Your task to perform on an android device: turn off notifications settings in the gmail app Image 0: 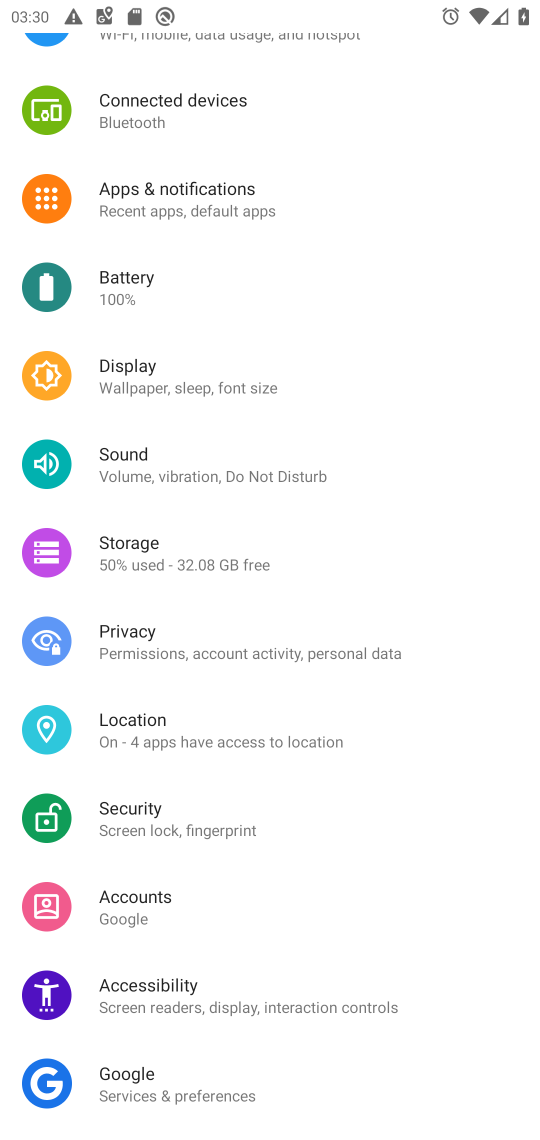
Step 0: press home button
Your task to perform on an android device: turn off notifications settings in the gmail app Image 1: 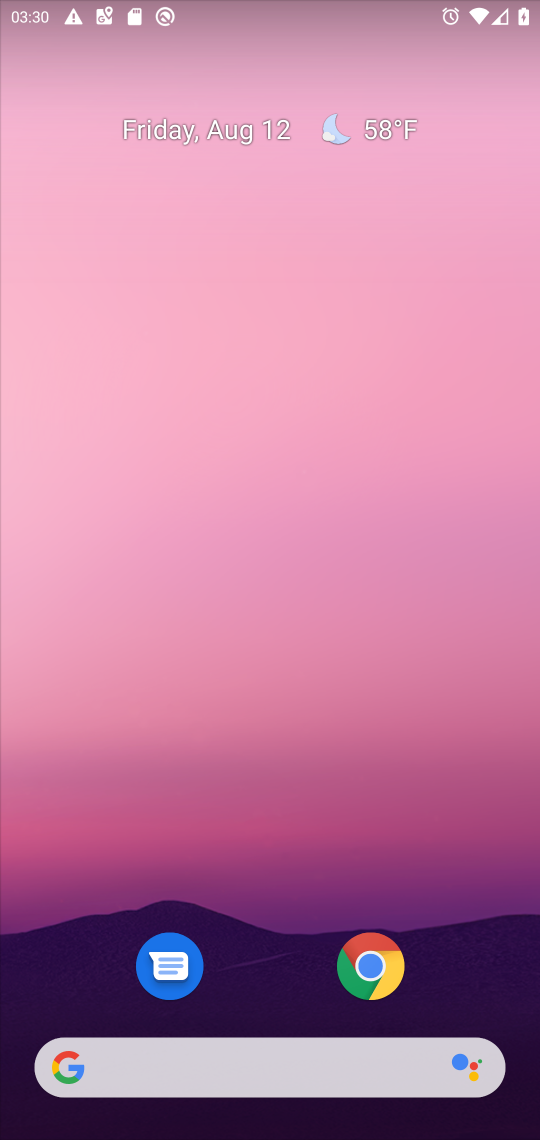
Step 1: drag from (266, 931) to (253, 25)
Your task to perform on an android device: turn off notifications settings in the gmail app Image 2: 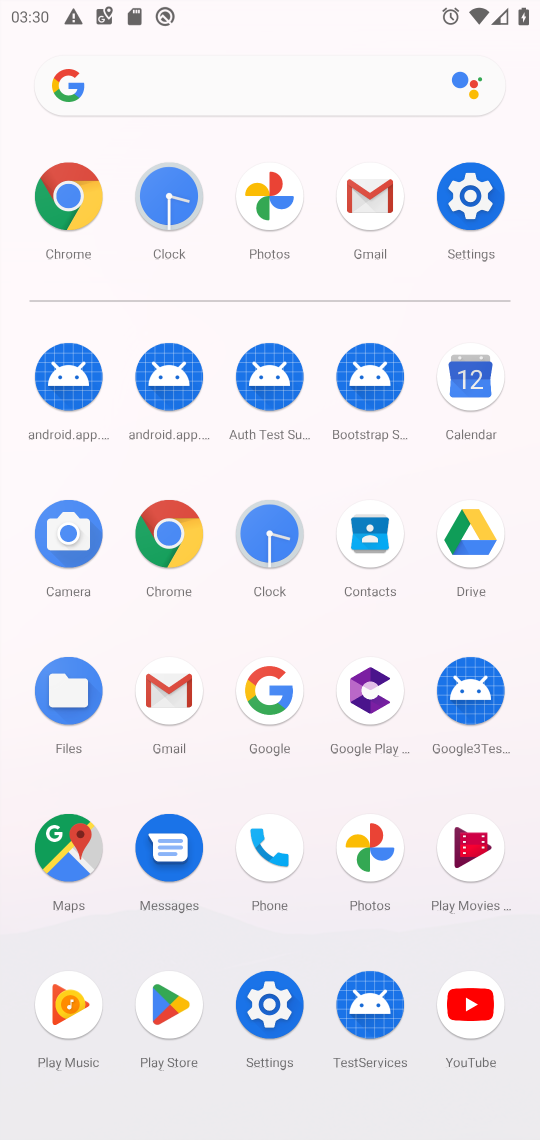
Step 2: click (372, 181)
Your task to perform on an android device: turn off notifications settings in the gmail app Image 3: 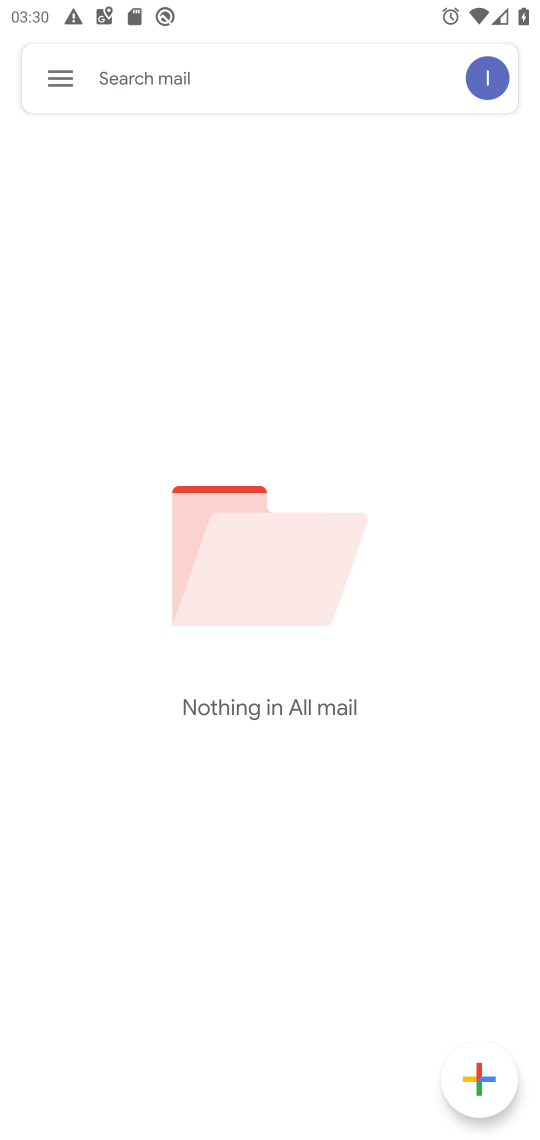
Step 3: click (66, 64)
Your task to perform on an android device: turn off notifications settings in the gmail app Image 4: 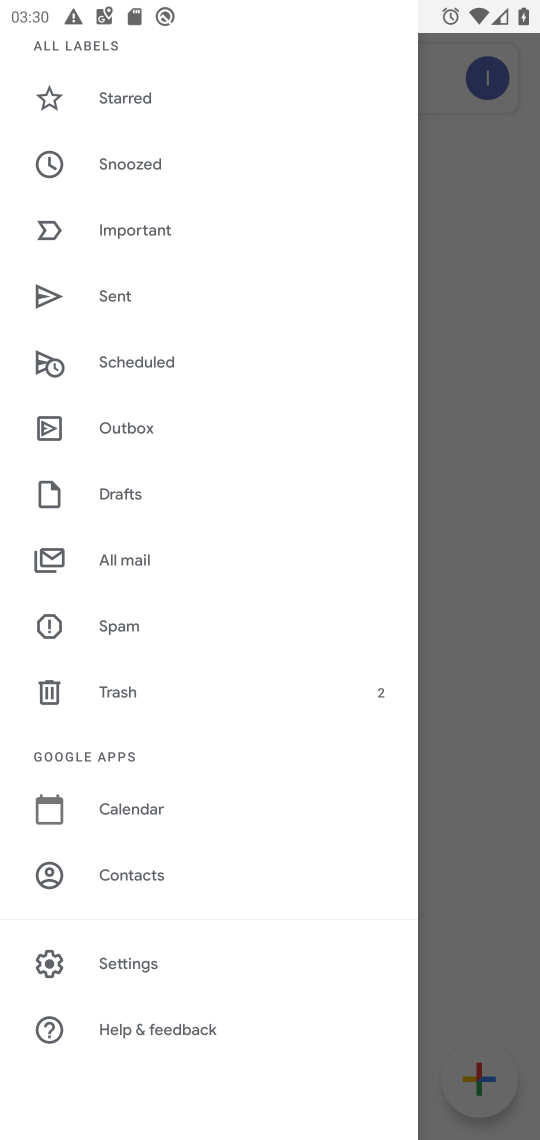
Step 4: click (129, 974)
Your task to perform on an android device: turn off notifications settings in the gmail app Image 5: 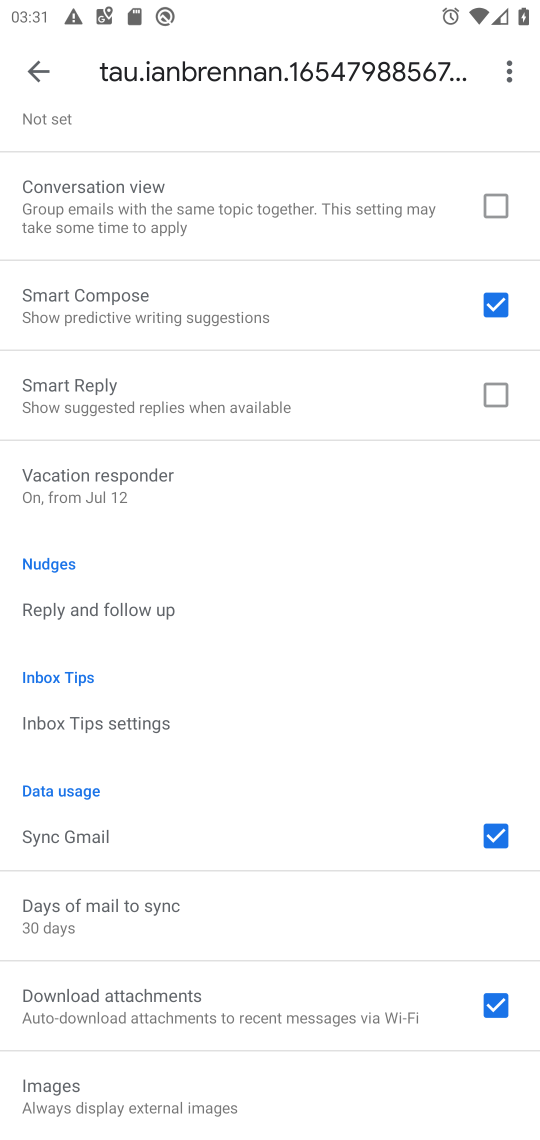
Step 5: drag from (265, 375) to (264, 1040)
Your task to perform on an android device: turn off notifications settings in the gmail app Image 6: 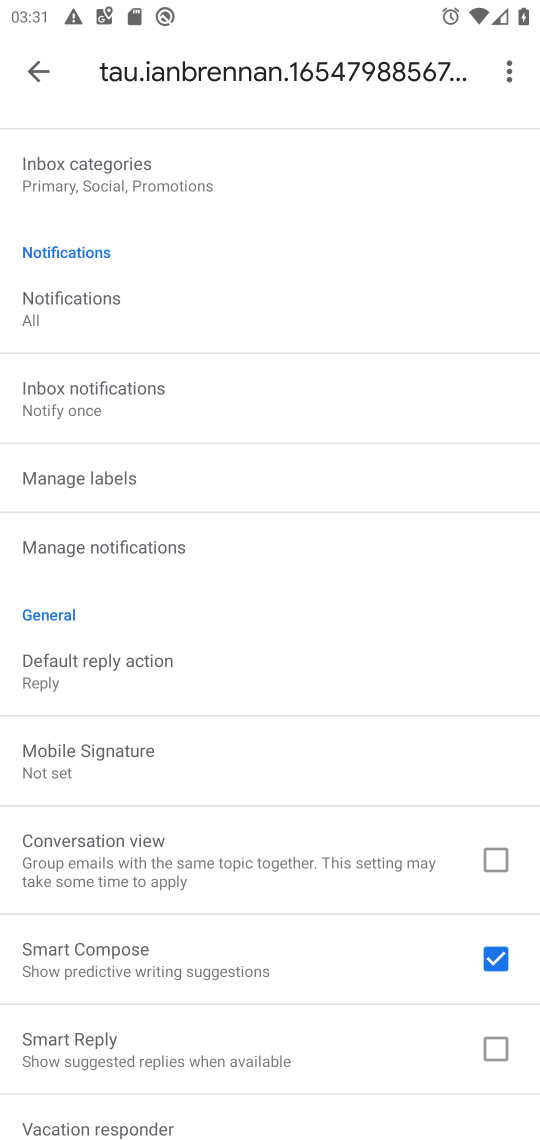
Step 6: click (129, 550)
Your task to perform on an android device: turn off notifications settings in the gmail app Image 7: 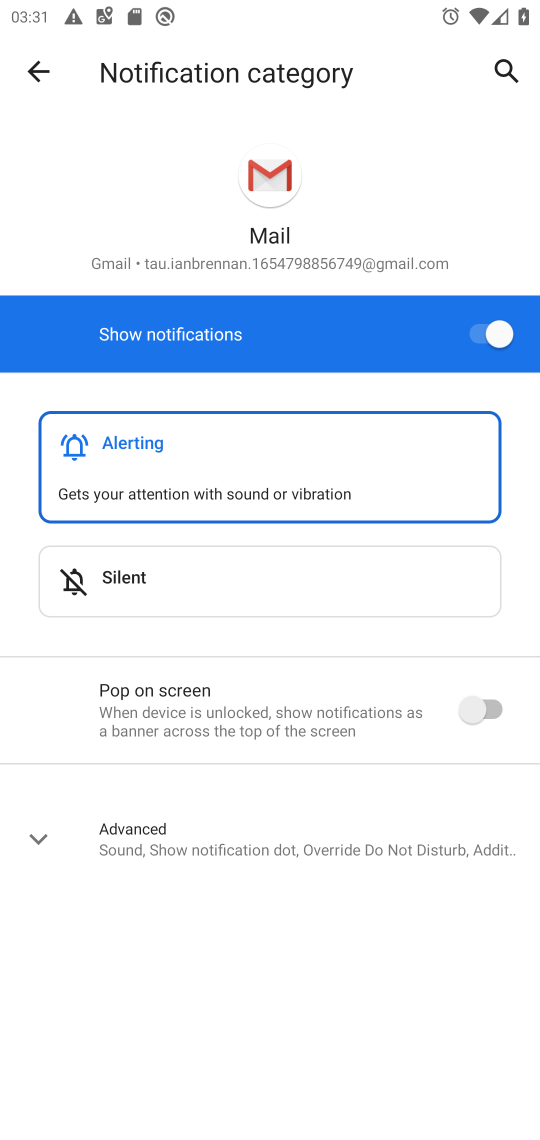
Step 7: click (489, 324)
Your task to perform on an android device: turn off notifications settings in the gmail app Image 8: 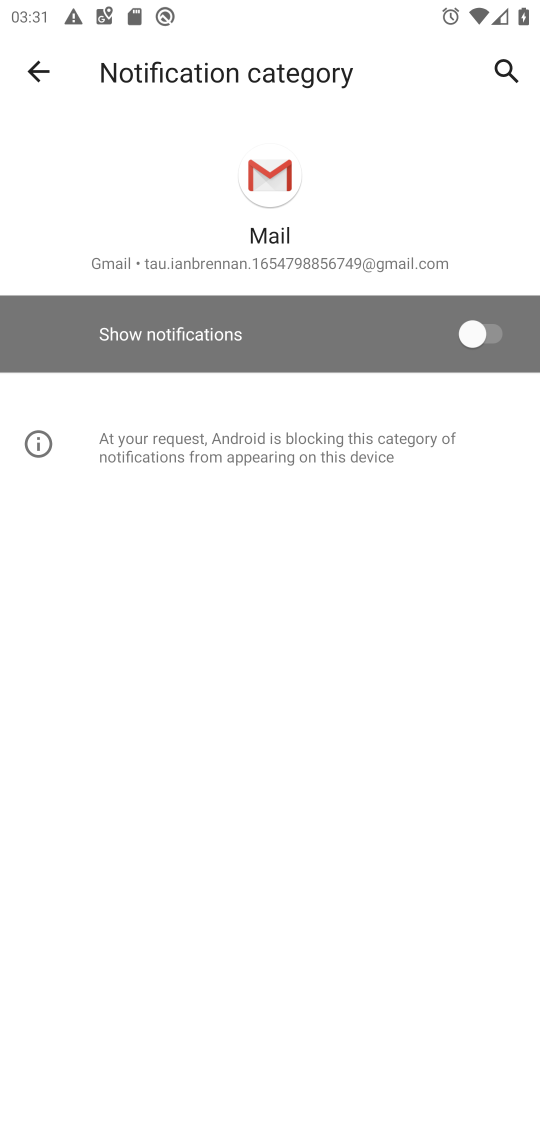
Step 8: task complete